Your task to perform on an android device: see sites visited before in the chrome app Image 0: 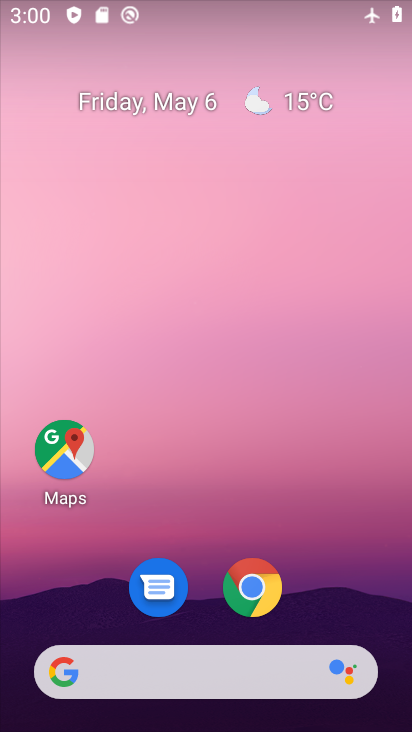
Step 0: click (254, 592)
Your task to perform on an android device: see sites visited before in the chrome app Image 1: 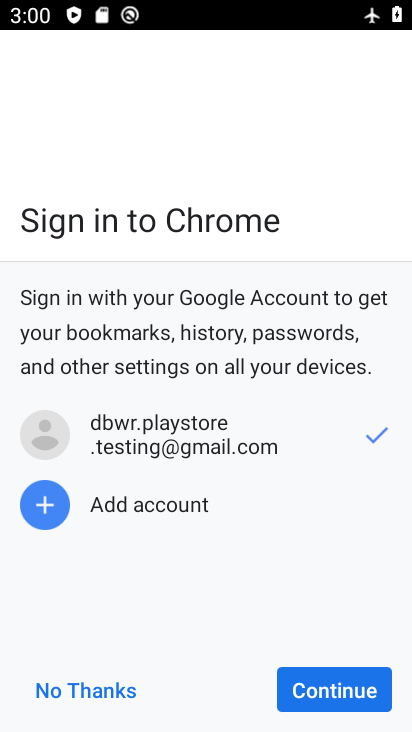
Step 1: click (332, 692)
Your task to perform on an android device: see sites visited before in the chrome app Image 2: 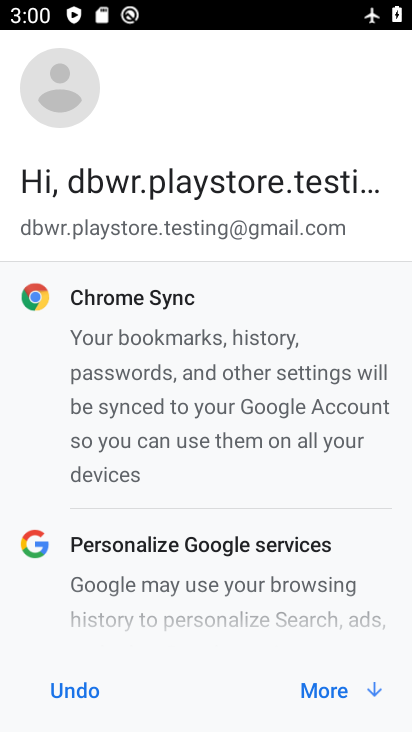
Step 2: click (332, 692)
Your task to perform on an android device: see sites visited before in the chrome app Image 3: 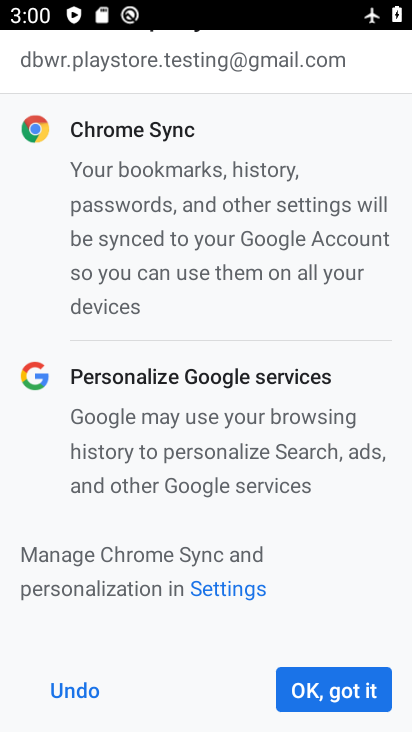
Step 3: click (332, 692)
Your task to perform on an android device: see sites visited before in the chrome app Image 4: 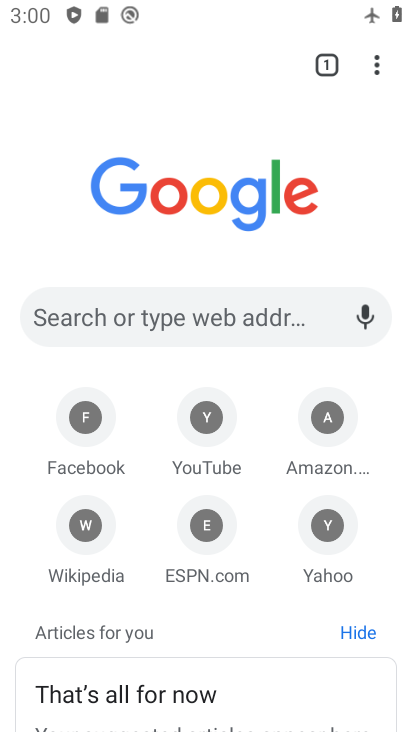
Step 4: click (374, 66)
Your task to perform on an android device: see sites visited before in the chrome app Image 5: 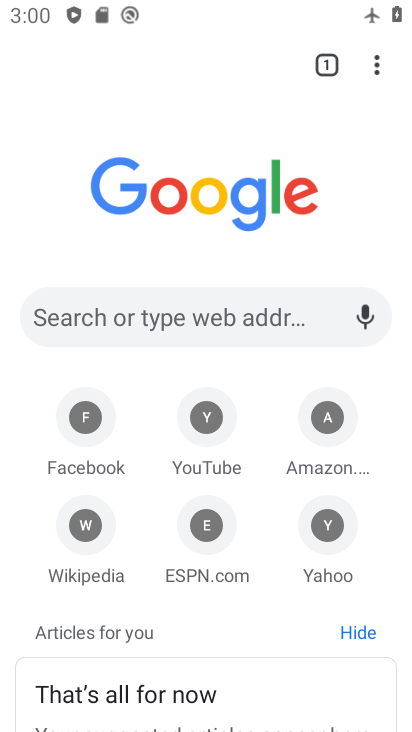
Step 5: click (375, 53)
Your task to perform on an android device: see sites visited before in the chrome app Image 6: 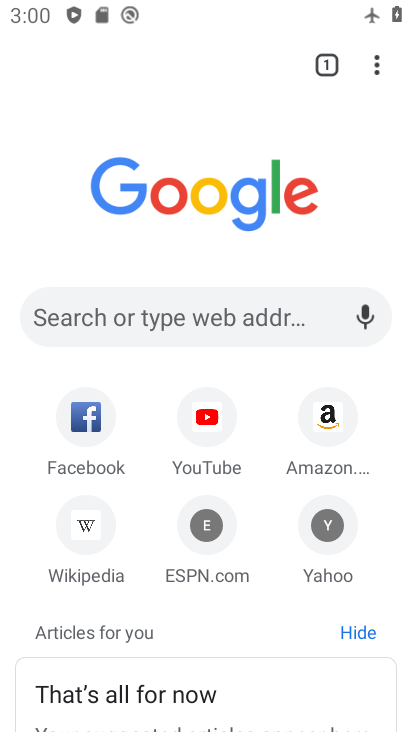
Step 6: click (375, 63)
Your task to perform on an android device: see sites visited before in the chrome app Image 7: 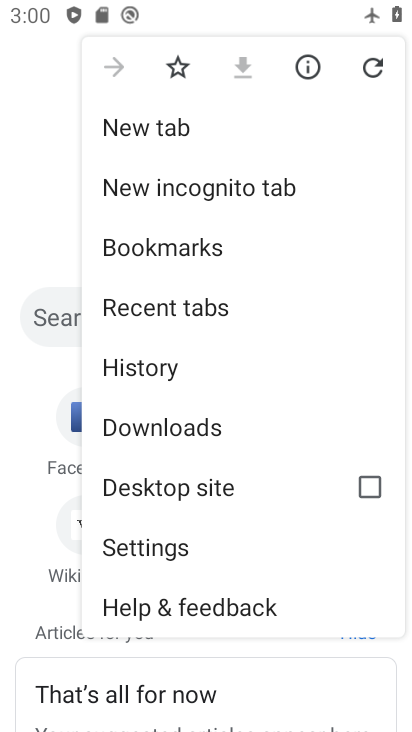
Step 7: click (182, 365)
Your task to perform on an android device: see sites visited before in the chrome app Image 8: 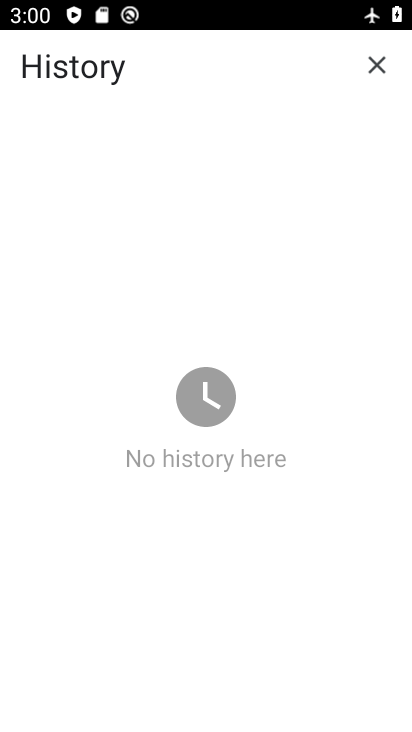
Step 8: task complete